Your task to perform on an android device: Open Google Chrome and open the bookmarks view Image 0: 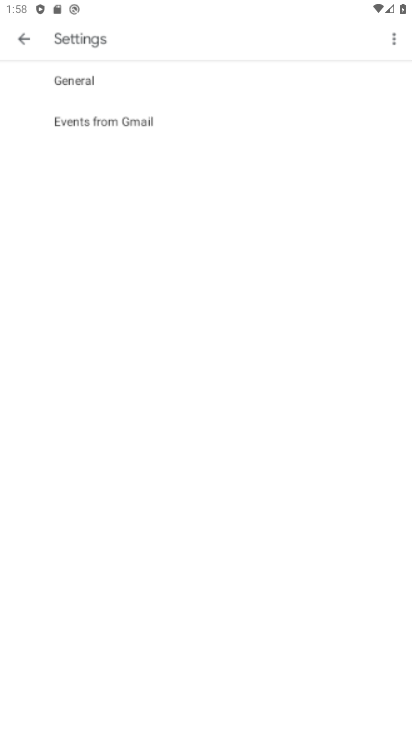
Step 0: drag from (228, 685) to (218, 153)
Your task to perform on an android device: Open Google Chrome and open the bookmarks view Image 1: 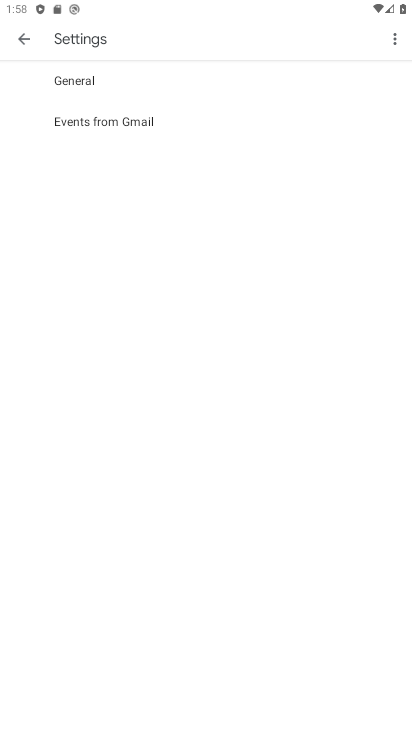
Step 1: click (19, 43)
Your task to perform on an android device: Open Google Chrome and open the bookmarks view Image 2: 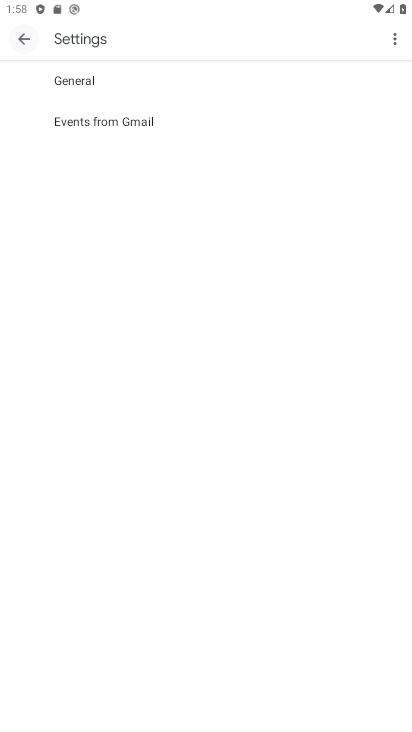
Step 2: click (25, 25)
Your task to perform on an android device: Open Google Chrome and open the bookmarks view Image 3: 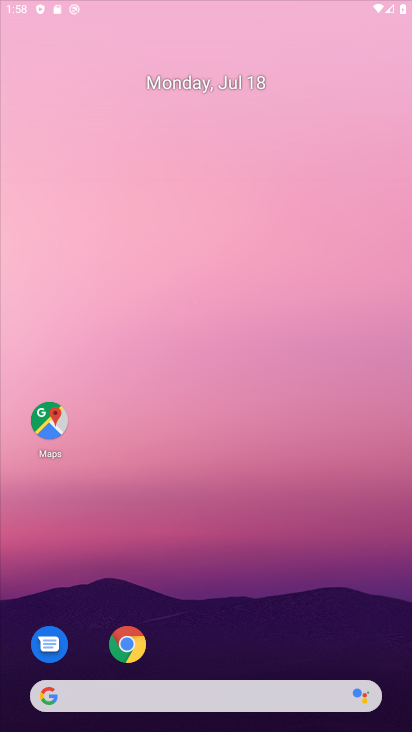
Step 3: click (26, 46)
Your task to perform on an android device: Open Google Chrome and open the bookmarks view Image 4: 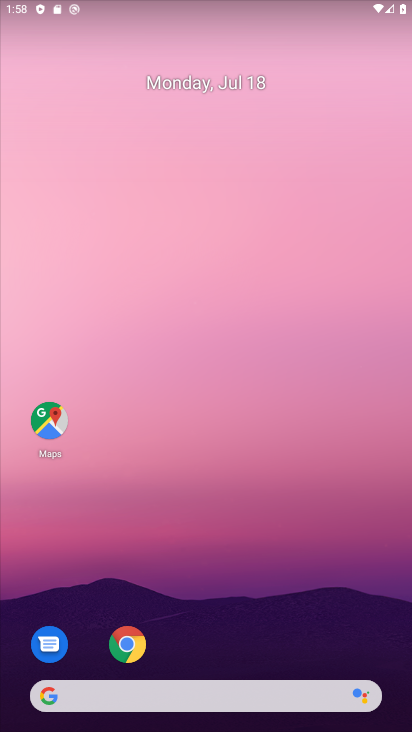
Step 4: drag from (267, 635) to (189, 354)
Your task to perform on an android device: Open Google Chrome and open the bookmarks view Image 5: 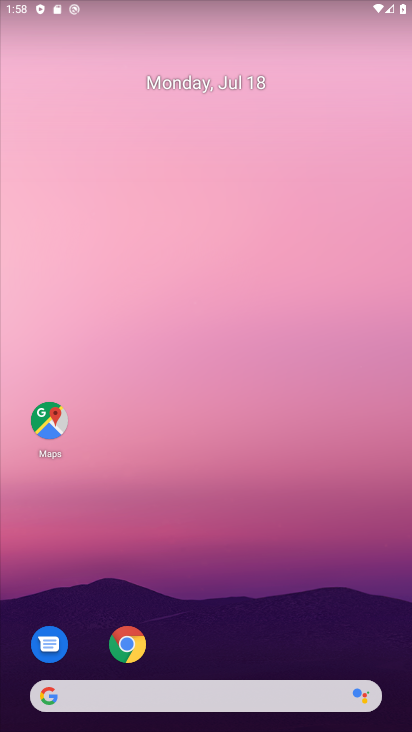
Step 5: drag from (291, 622) to (213, 331)
Your task to perform on an android device: Open Google Chrome and open the bookmarks view Image 6: 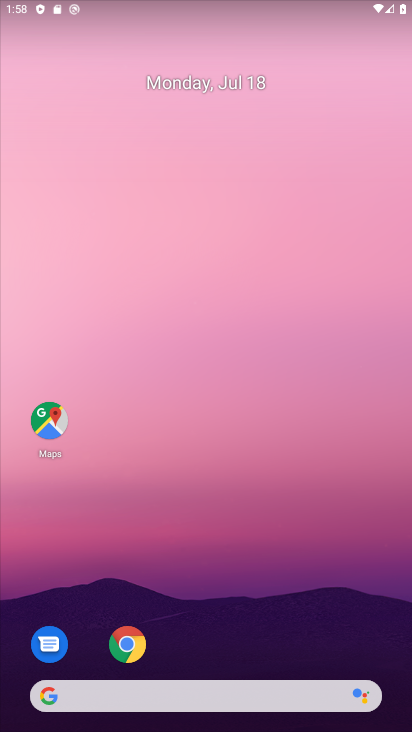
Step 6: drag from (285, 602) to (237, 306)
Your task to perform on an android device: Open Google Chrome and open the bookmarks view Image 7: 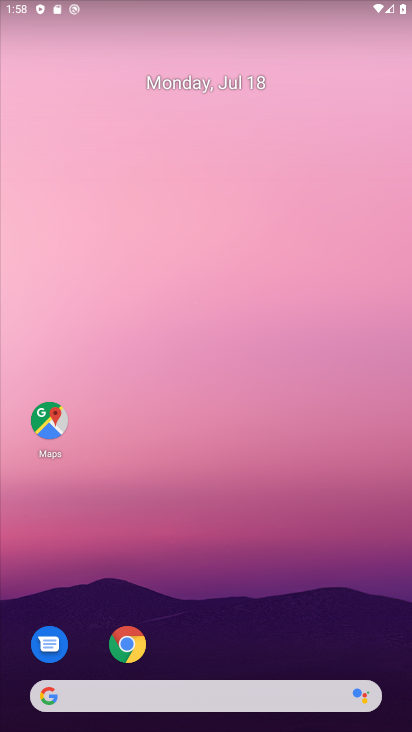
Step 7: drag from (219, 492) to (144, 311)
Your task to perform on an android device: Open Google Chrome and open the bookmarks view Image 8: 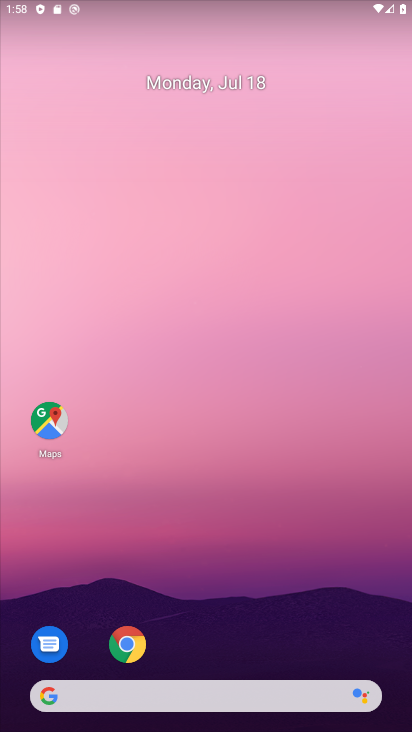
Step 8: drag from (280, 648) to (202, 184)
Your task to perform on an android device: Open Google Chrome and open the bookmarks view Image 9: 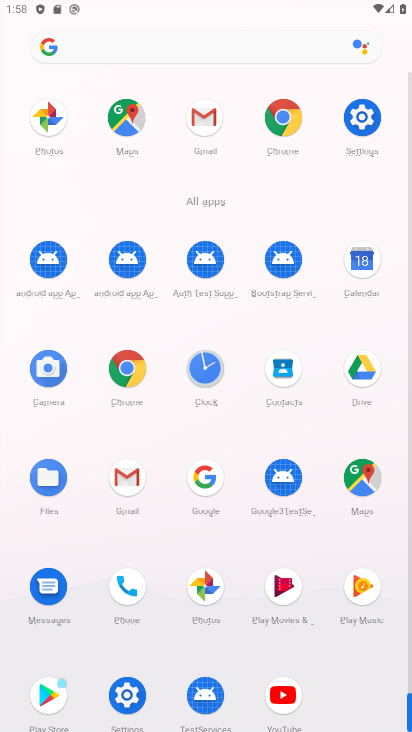
Step 9: drag from (234, 501) to (183, 140)
Your task to perform on an android device: Open Google Chrome and open the bookmarks view Image 10: 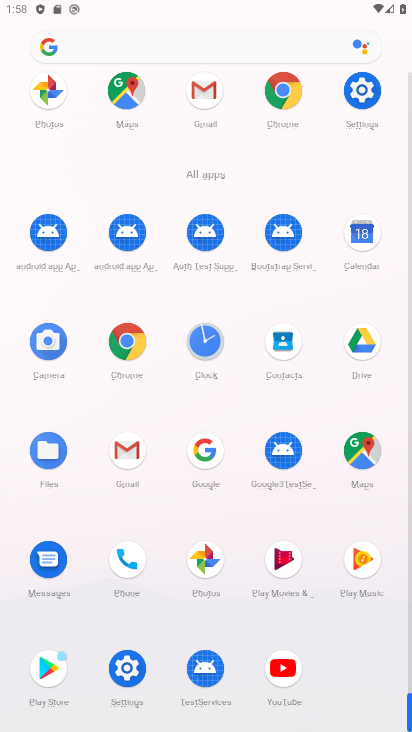
Step 10: click (285, 106)
Your task to perform on an android device: Open Google Chrome and open the bookmarks view Image 11: 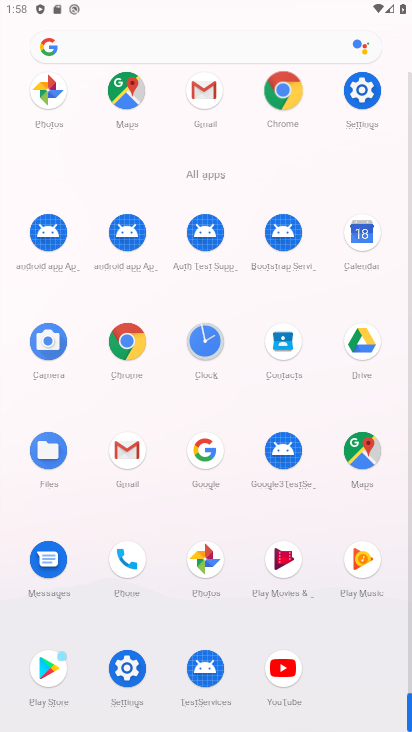
Step 11: click (285, 105)
Your task to perform on an android device: Open Google Chrome and open the bookmarks view Image 12: 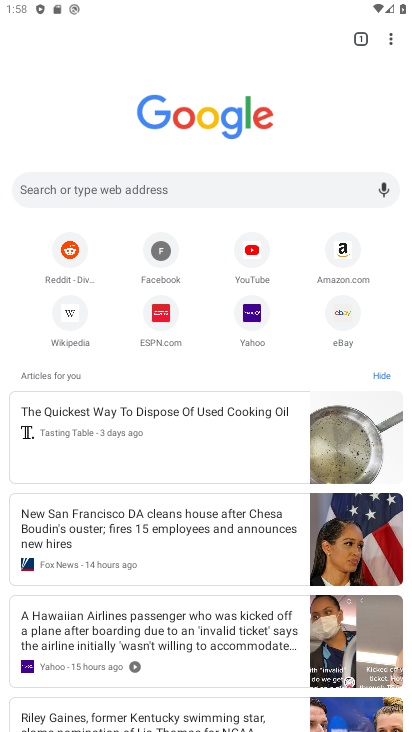
Step 12: drag from (396, 40) to (271, 36)
Your task to perform on an android device: Open Google Chrome and open the bookmarks view Image 13: 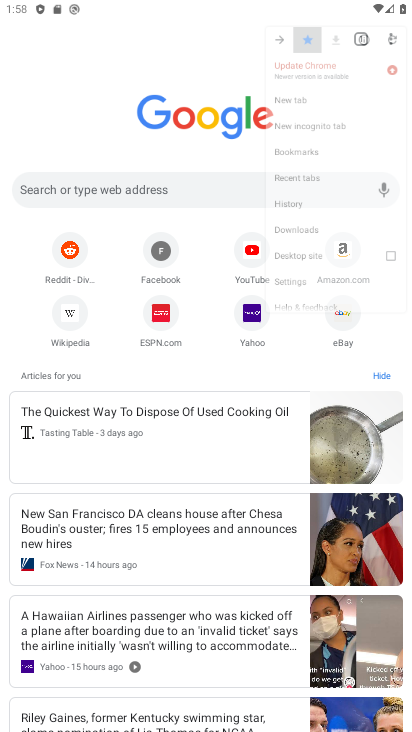
Step 13: click (271, 37)
Your task to perform on an android device: Open Google Chrome and open the bookmarks view Image 14: 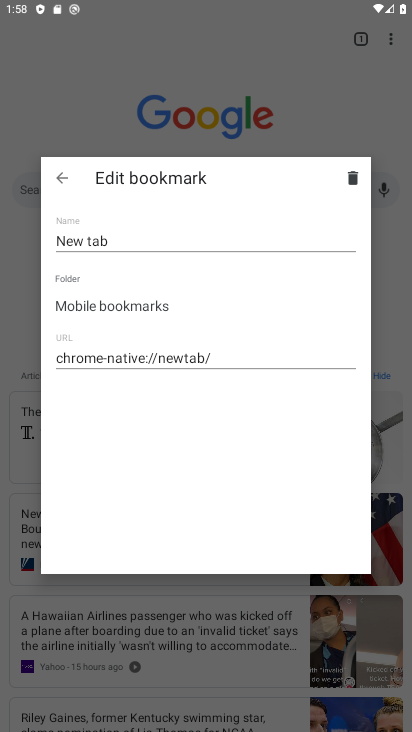
Step 14: click (283, 72)
Your task to perform on an android device: Open Google Chrome and open the bookmarks view Image 15: 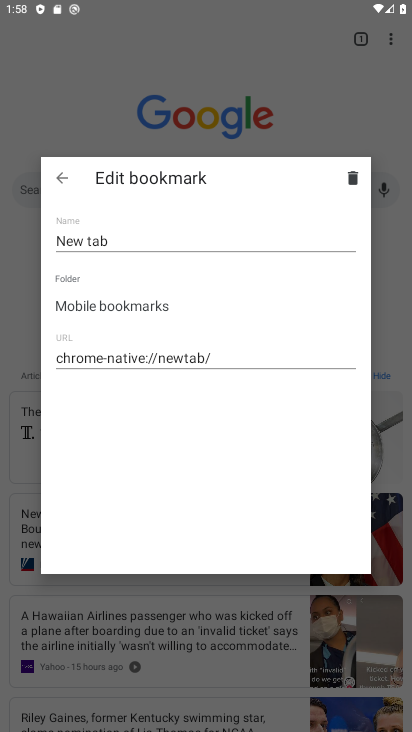
Step 15: click (284, 72)
Your task to perform on an android device: Open Google Chrome and open the bookmarks view Image 16: 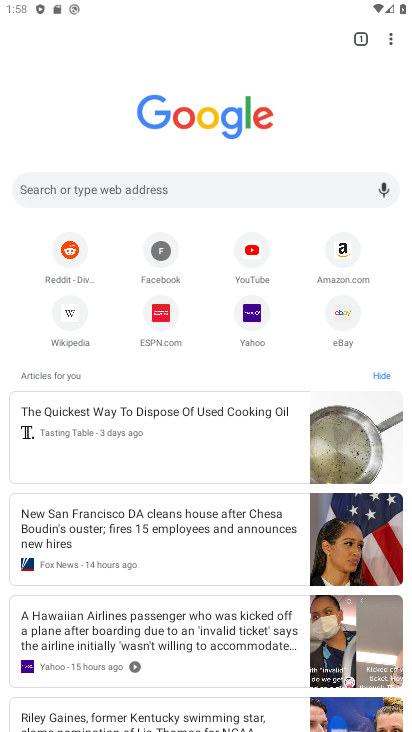
Step 16: drag from (387, 47) to (363, 269)
Your task to perform on an android device: Open Google Chrome and open the bookmarks view Image 17: 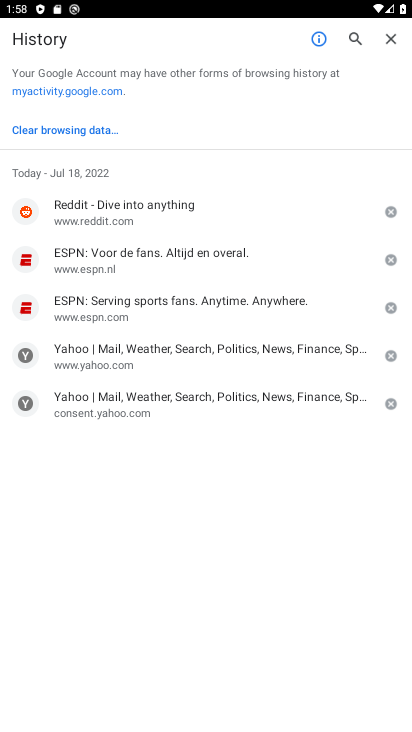
Step 17: click (379, 45)
Your task to perform on an android device: Open Google Chrome and open the bookmarks view Image 18: 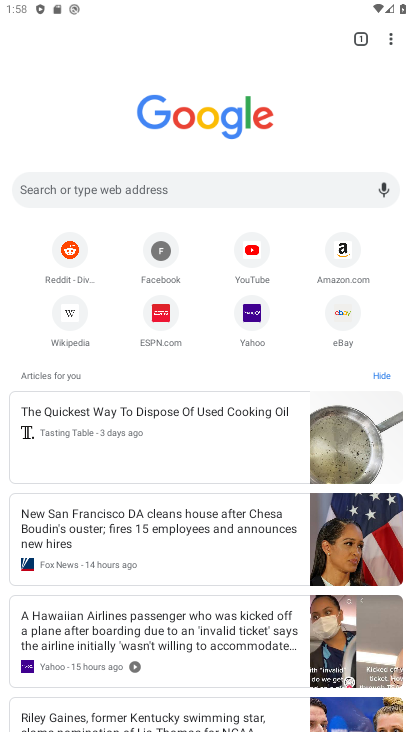
Step 18: drag from (394, 42) to (274, 196)
Your task to perform on an android device: Open Google Chrome and open the bookmarks view Image 19: 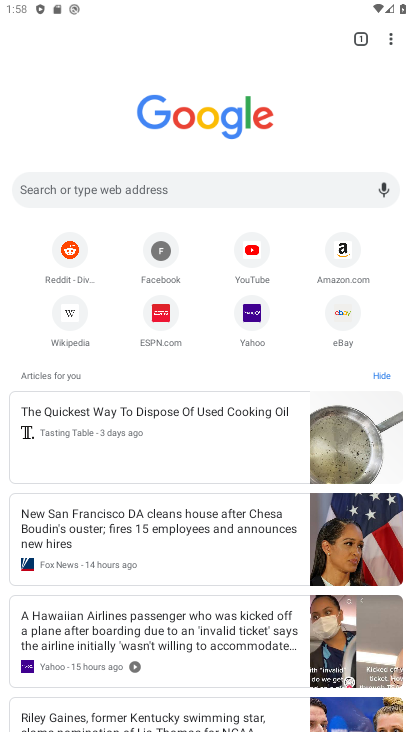
Step 19: click (274, 196)
Your task to perform on an android device: Open Google Chrome and open the bookmarks view Image 20: 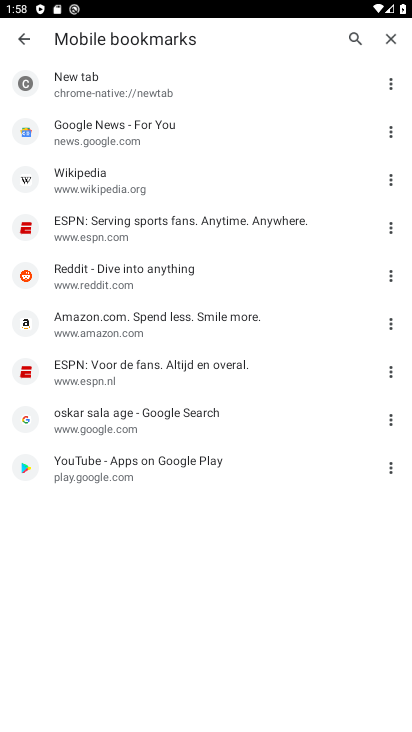
Step 20: task complete